Your task to perform on an android device: Go to network settings Image 0: 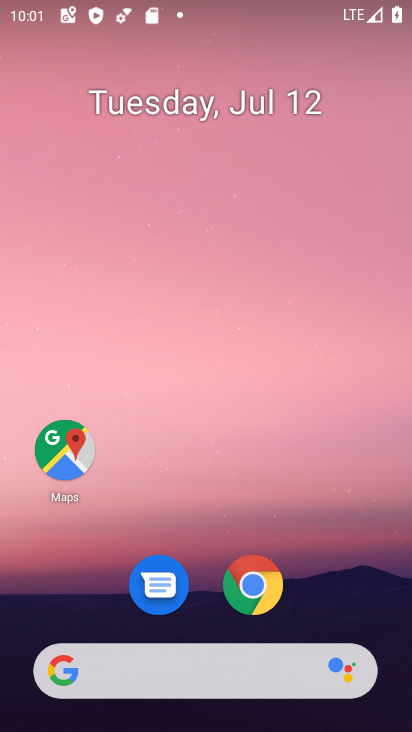
Step 0: drag from (218, 562) to (302, 41)
Your task to perform on an android device: Go to network settings Image 1: 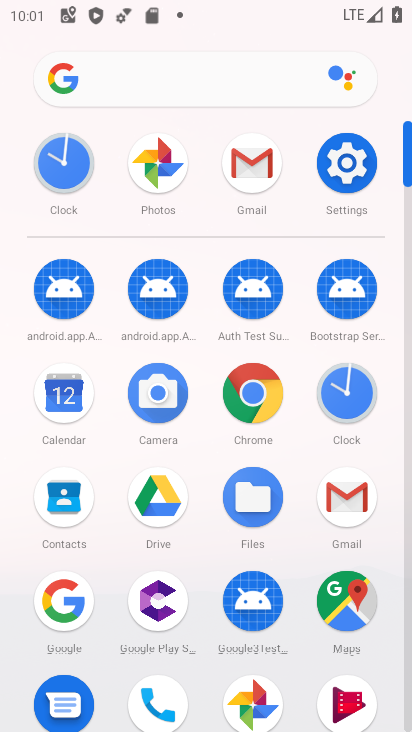
Step 1: click (345, 172)
Your task to perform on an android device: Go to network settings Image 2: 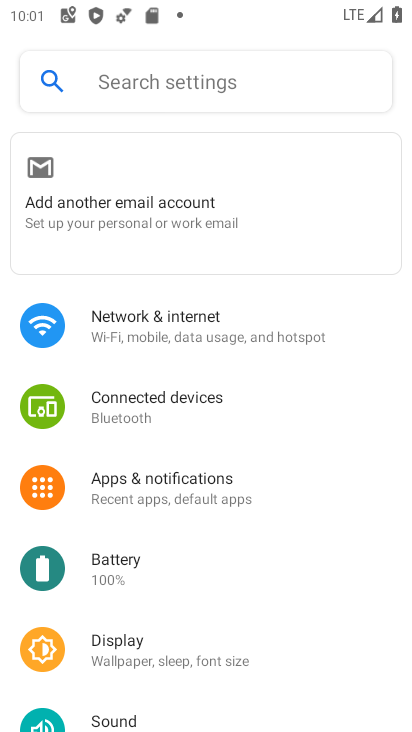
Step 2: click (184, 329)
Your task to perform on an android device: Go to network settings Image 3: 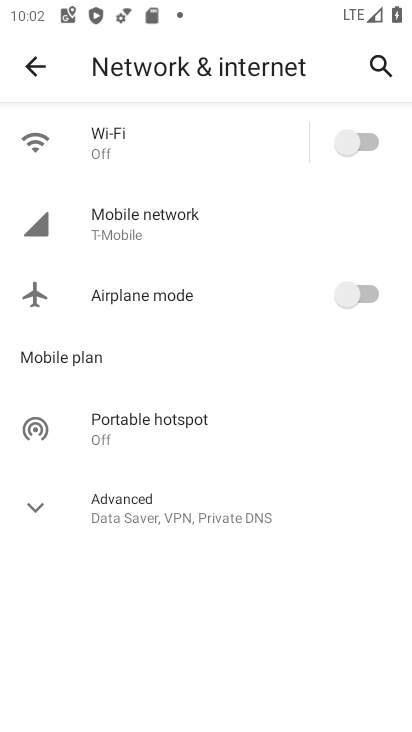
Step 3: click (180, 227)
Your task to perform on an android device: Go to network settings Image 4: 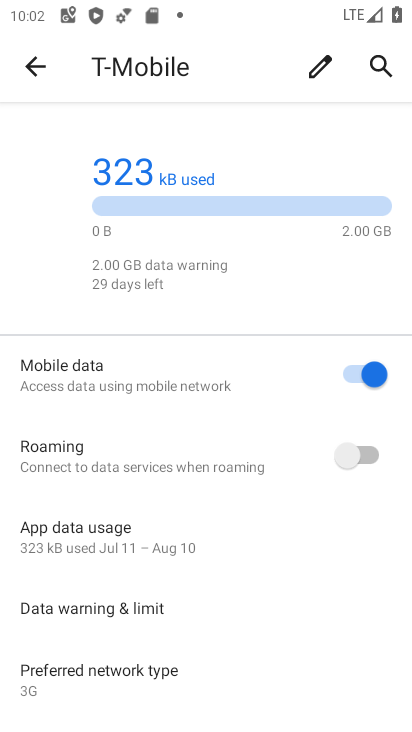
Step 4: task complete